Your task to perform on an android device: install app "LiveIn - Share Your Moment" Image 0: 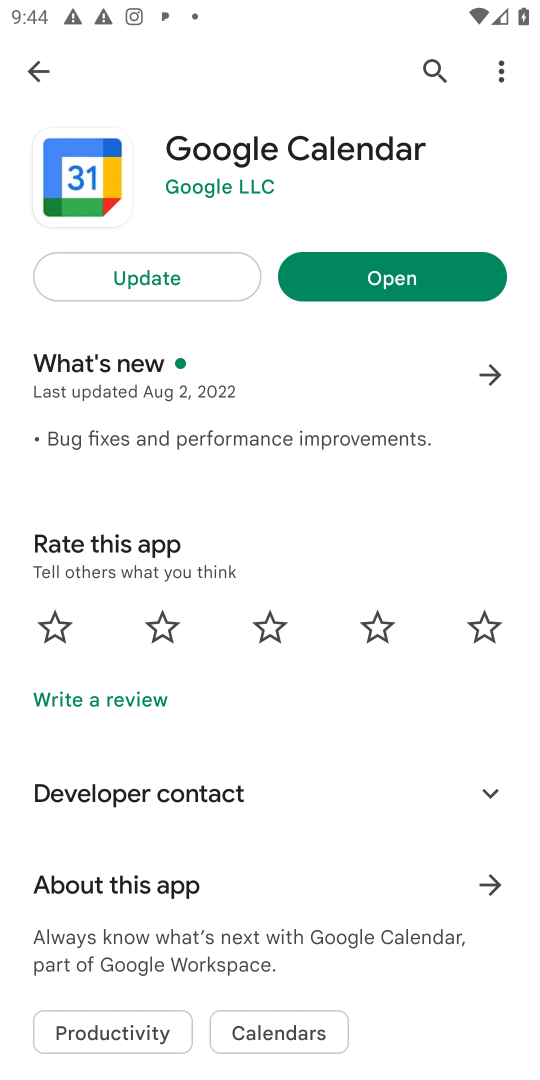
Step 0: press home button
Your task to perform on an android device: install app "LiveIn - Share Your Moment" Image 1: 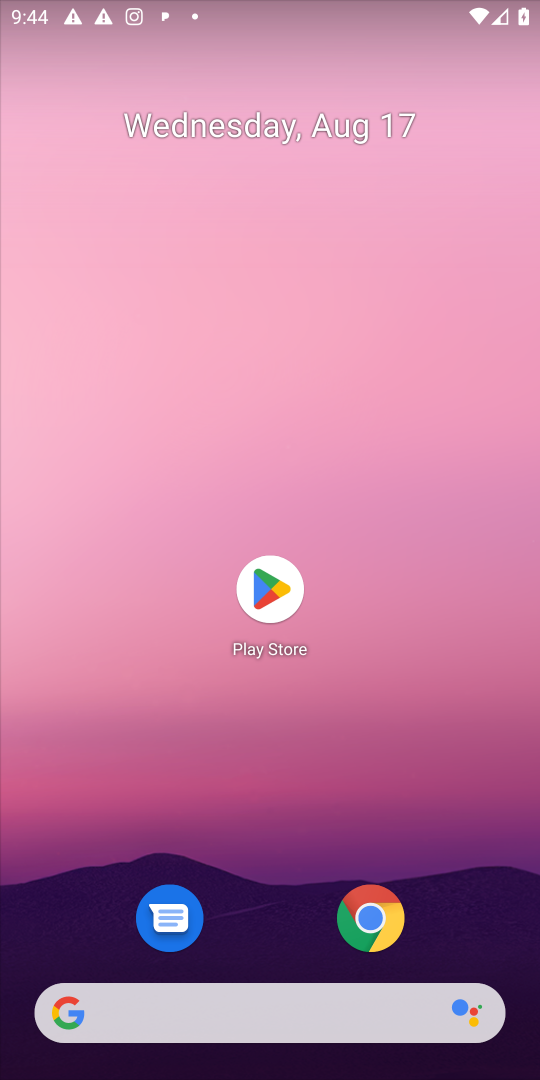
Step 1: click (274, 589)
Your task to perform on an android device: install app "LiveIn - Share Your Moment" Image 2: 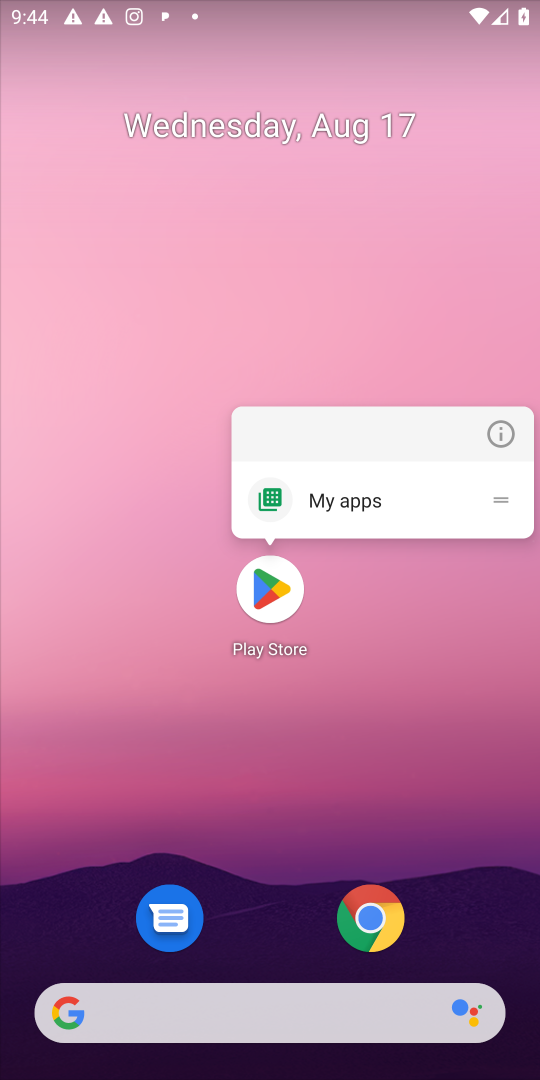
Step 2: click (274, 589)
Your task to perform on an android device: install app "LiveIn - Share Your Moment" Image 3: 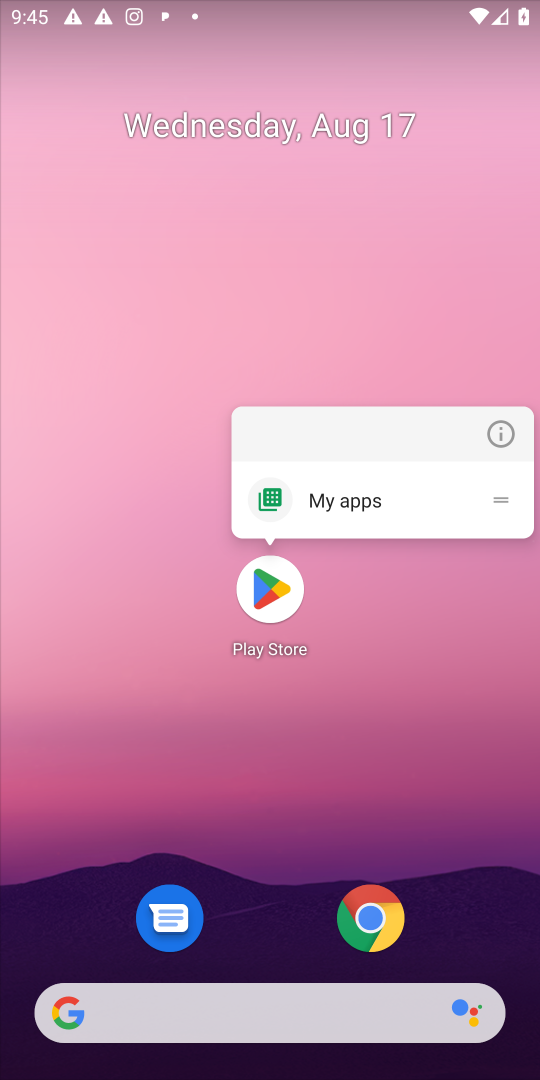
Step 3: click (266, 597)
Your task to perform on an android device: install app "LiveIn - Share Your Moment" Image 4: 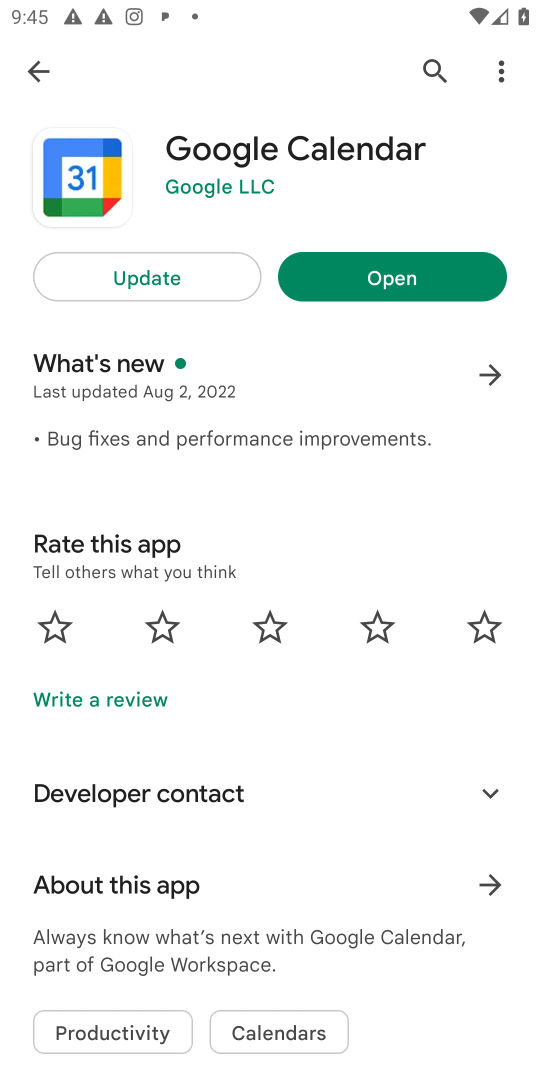
Step 4: click (426, 60)
Your task to perform on an android device: install app "LiveIn - Share Your Moment" Image 5: 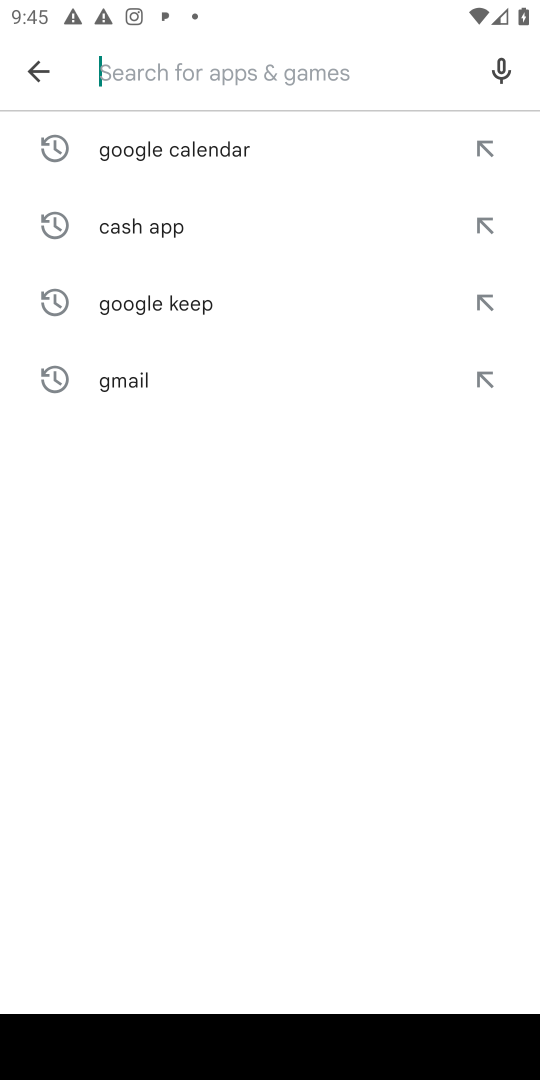
Step 5: type "LiveIn - Share Your Moment"
Your task to perform on an android device: install app "LiveIn - Share Your Moment" Image 6: 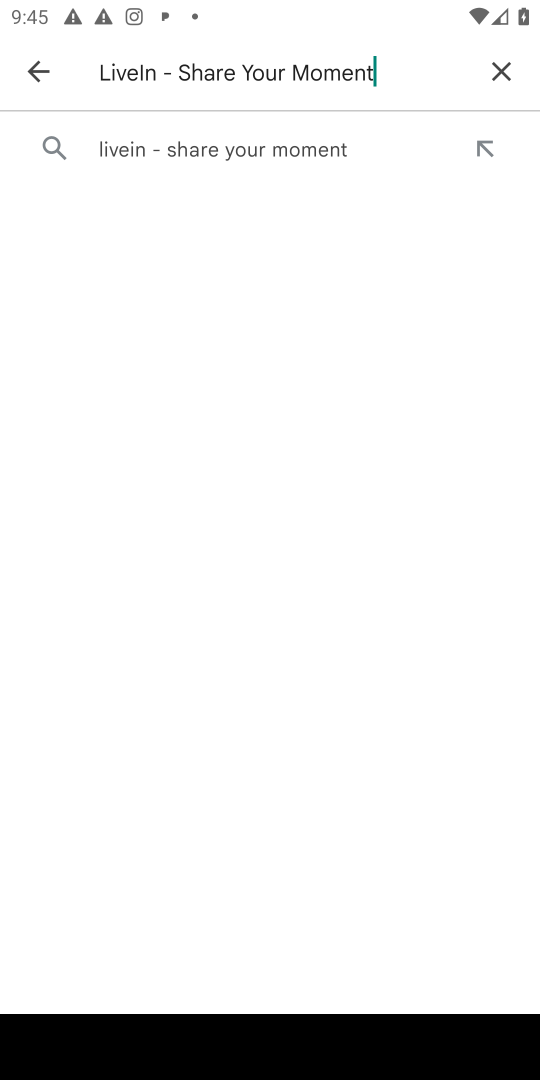
Step 6: click (222, 148)
Your task to perform on an android device: install app "LiveIn - Share Your Moment" Image 7: 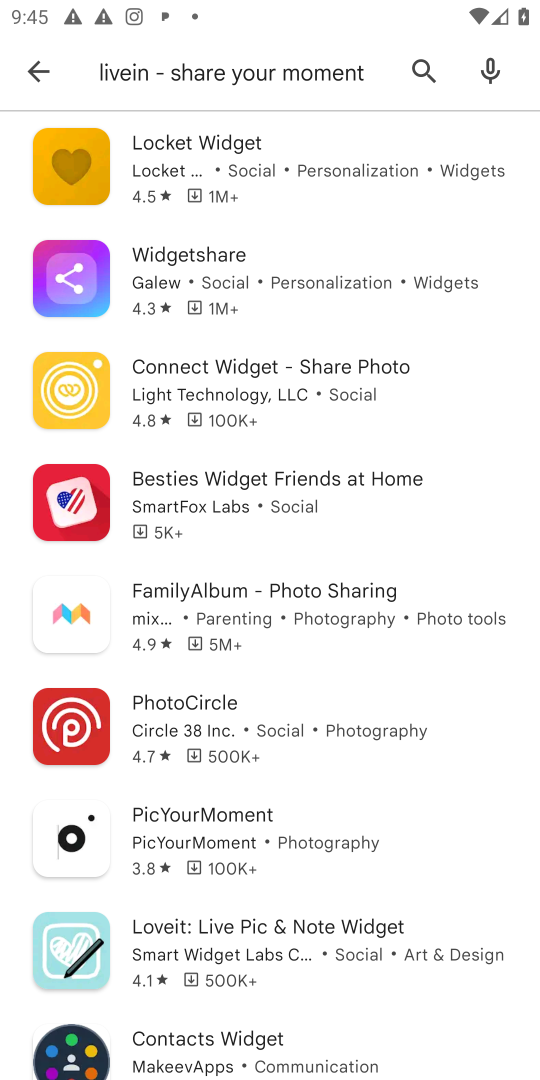
Step 7: task complete